Your task to perform on an android device: Show me productivity apps on the Play Store Image 0: 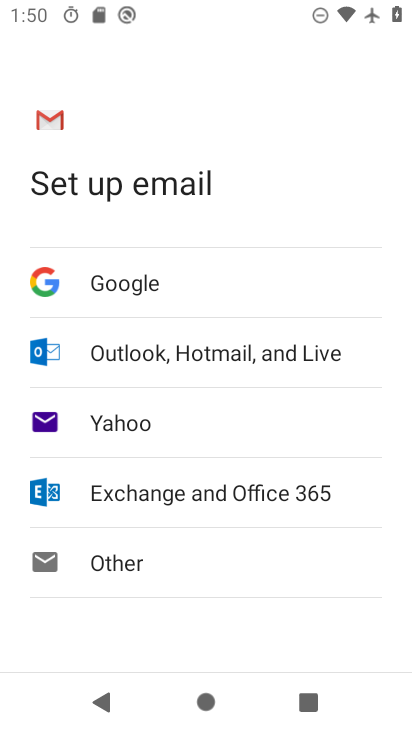
Step 0: press home button
Your task to perform on an android device: Show me productivity apps on the Play Store Image 1: 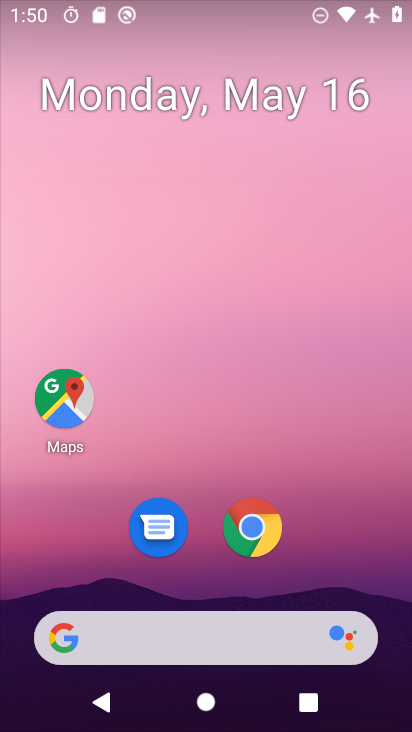
Step 1: drag from (180, 642) to (274, 194)
Your task to perform on an android device: Show me productivity apps on the Play Store Image 2: 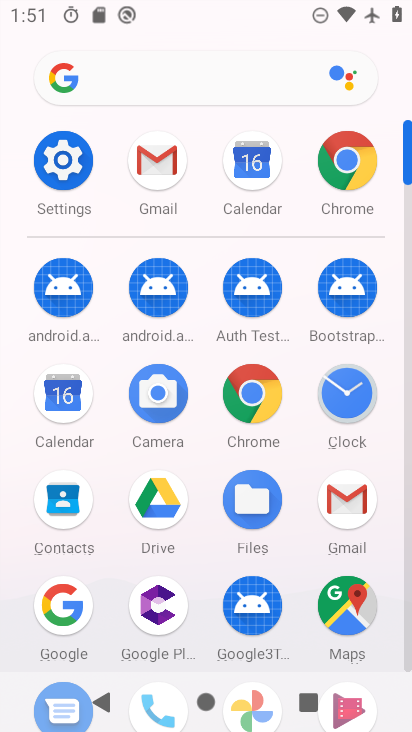
Step 2: drag from (178, 675) to (306, 287)
Your task to perform on an android device: Show me productivity apps on the Play Store Image 3: 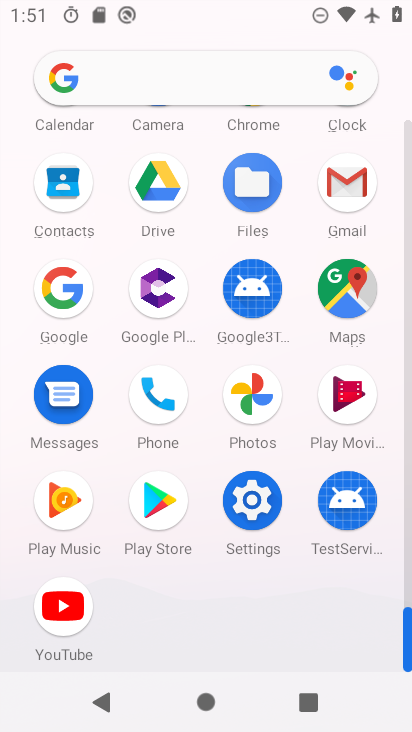
Step 3: click (162, 498)
Your task to perform on an android device: Show me productivity apps on the Play Store Image 4: 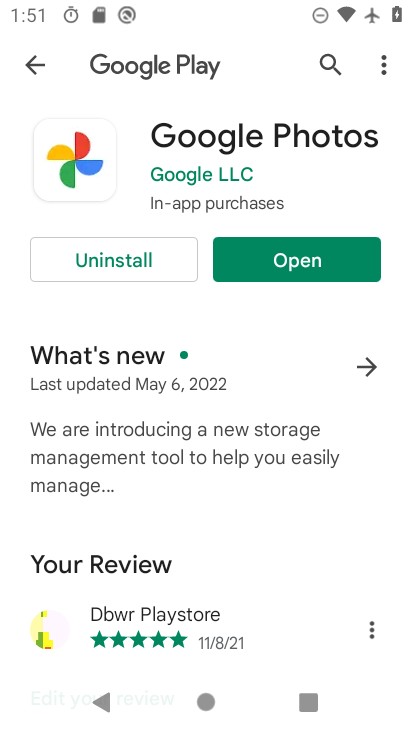
Step 4: click (37, 61)
Your task to perform on an android device: Show me productivity apps on the Play Store Image 5: 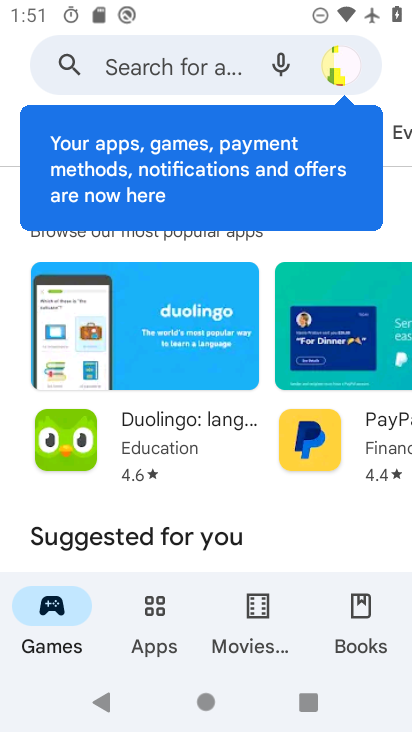
Step 5: click (155, 609)
Your task to perform on an android device: Show me productivity apps on the Play Store Image 6: 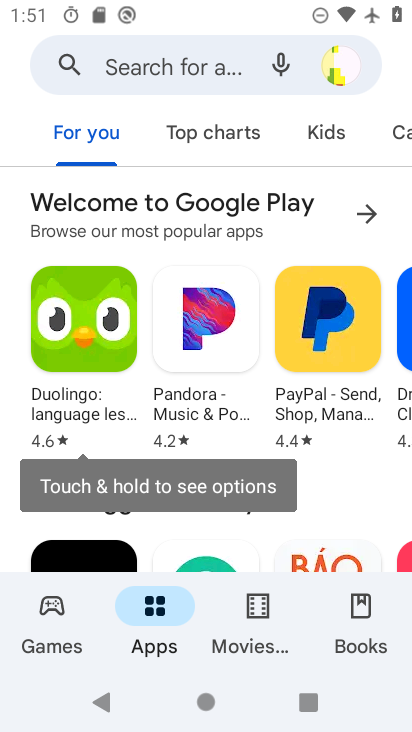
Step 6: click (395, 131)
Your task to perform on an android device: Show me productivity apps on the Play Store Image 7: 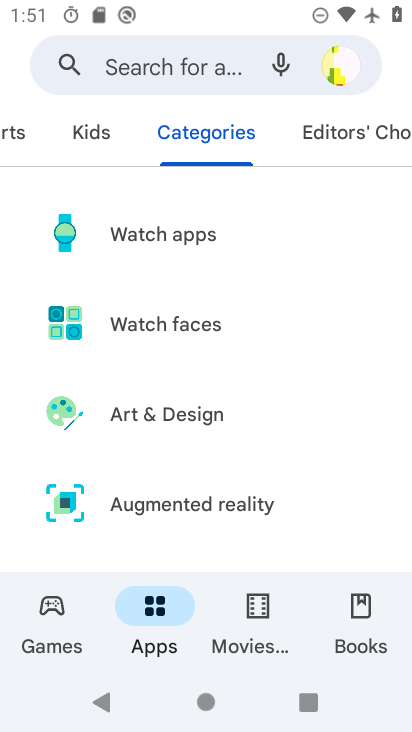
Step 7: drag from (214, 539) to (292, 113)
Your task to perform on an android device: Show me productivity apps on the Play Store Image 8: 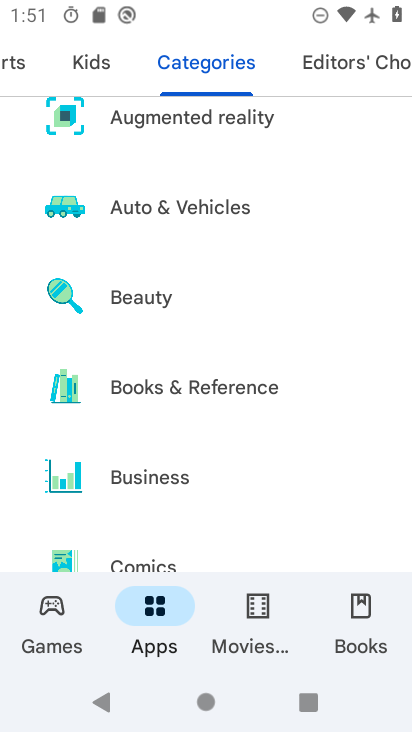
Step 8: drag from (282, 518) to (308, 181)
Your task to perform on an android device: Show me productivity apps on the Play Store Image 9: 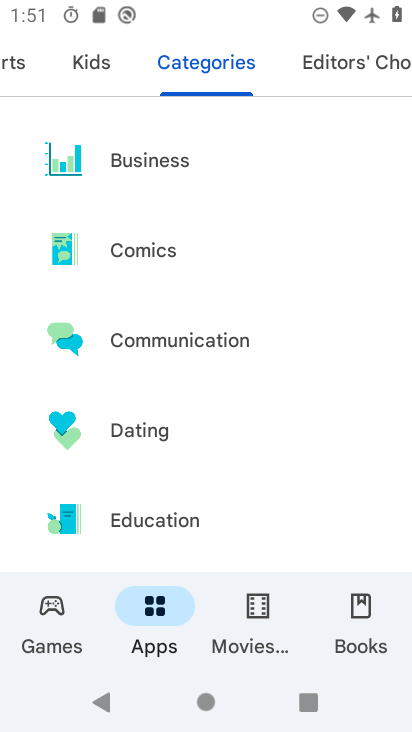
Step 9: drag from (255, 542) to (288, 144)
Your task to perform on an android device: Show me productivity apps on the Play Store Image 10: 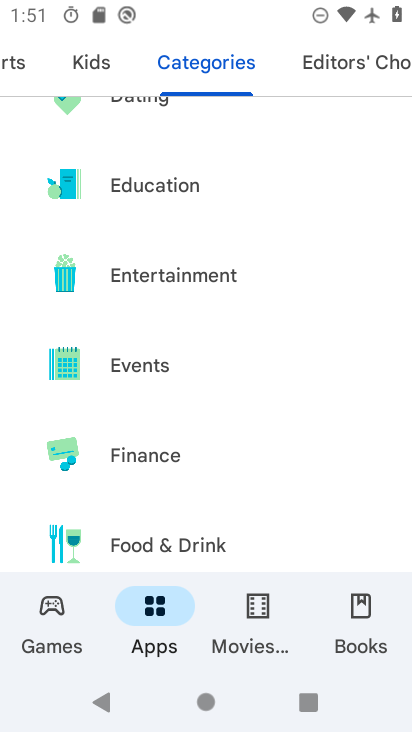
Step 10: drag from (252, 512) to (270, 106)
Your task to perform on an android device: Show me productivity apps on the Play Store Image 11: 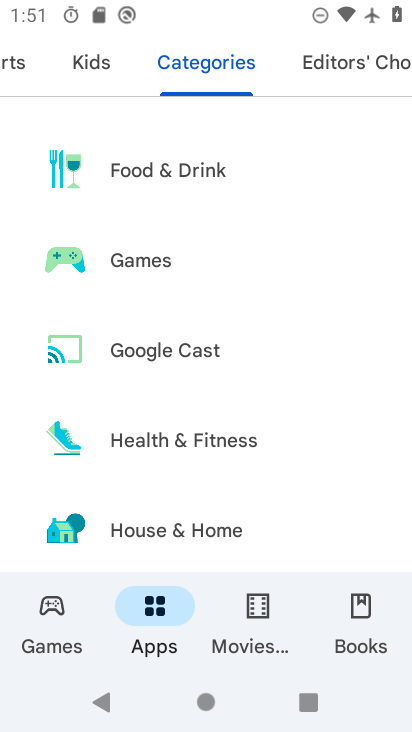
Step 11: drag from (277, 524) to (310, 114)
Your task to perform on an android device: Show me productivity apps on the Play Store Image 12: 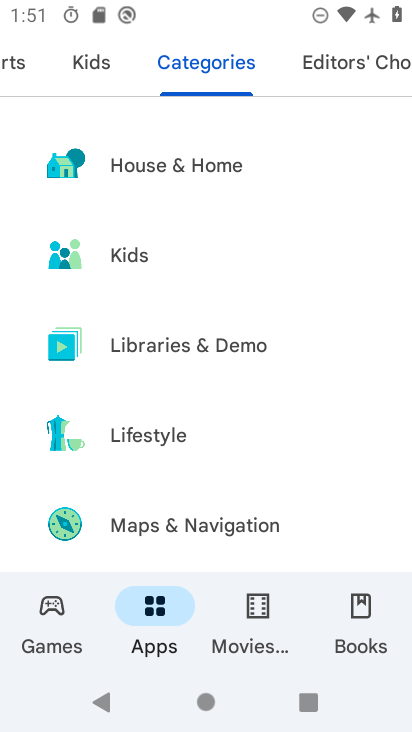
Step 12: drag from (267, 473) to (295, 139)
Your task to perform on an android device: Show me productivity apps on the Play Store Image 13: 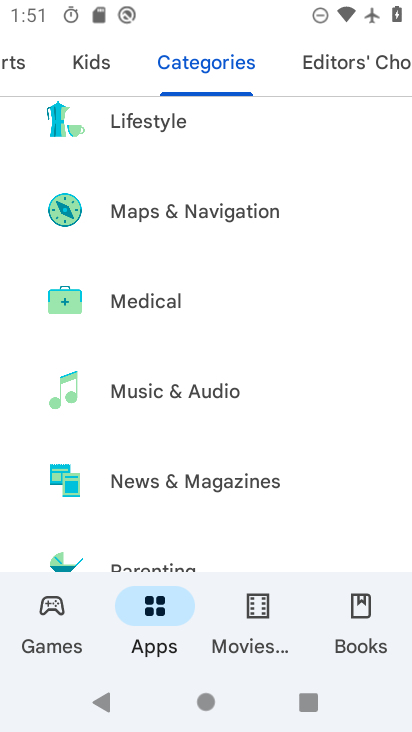
Step 13: drag from (266, 518) to (279, 75)
Your task to perform on an android device: Show me productivity apps on the Play Store Image 14: 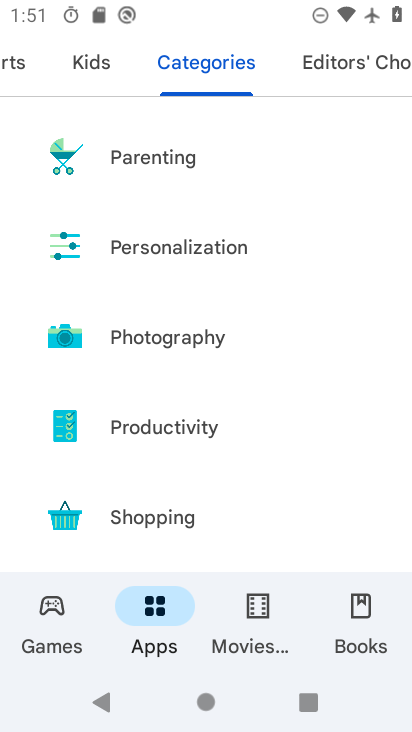
Step 14: click (177, 423)
Your task to perform on an android device: Show me productivity apps on the Play Store Image 15: 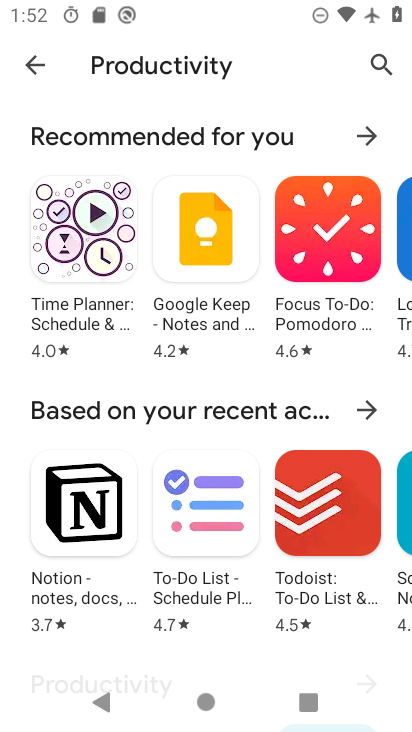
Step 15: task complete